Your task to perform on an android device: clear history in the chrome app Image 0: 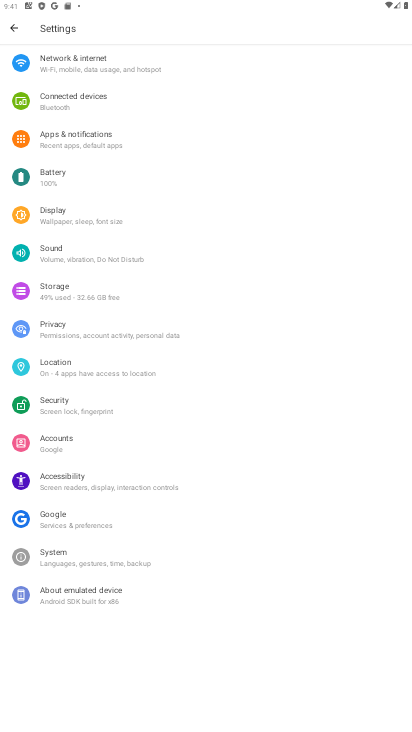
Step 0: press home button
Your task to perform on an android device: clear history in the chrome app Image 1: 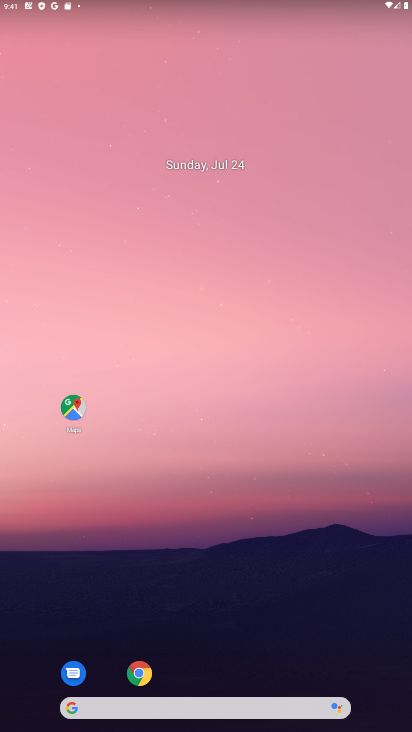
Step 1: click (143, 669)
Your task to perform on an android device: clear history in the chrome app Image 2: 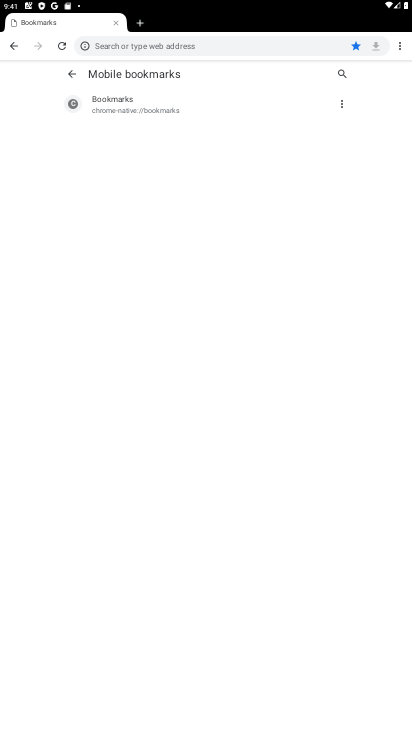
Step 2: click (401, 42)
Your task to perform on an android device: clear history in the chrome app Image 3: 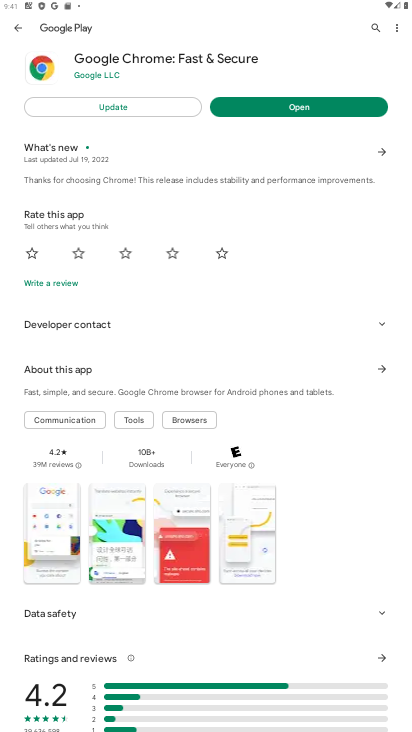
Step 3: click (19, 29)
Your task to perform on an android device: clear history in the chrome app Image 4: 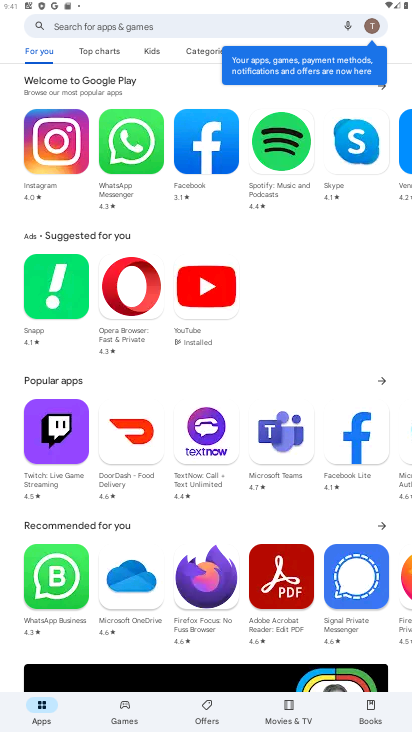
Step 4: task complete